Your task to perform on an android device: turn on javascript in the chrome app Image 0: 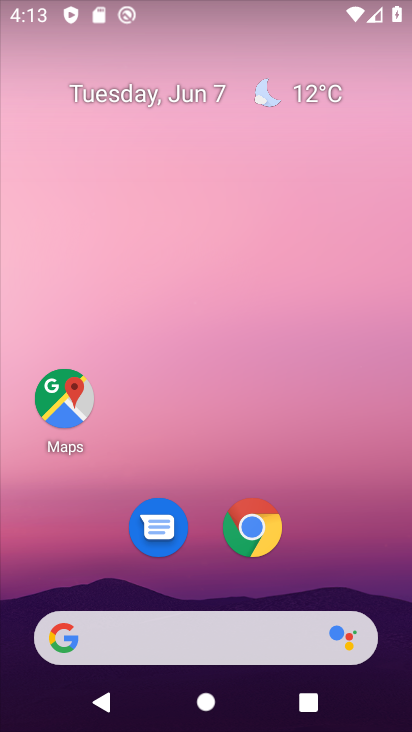
Step 0: click (254, 528)
Your task to perform on an android device: turn on javascript in the chrome app Image 1: 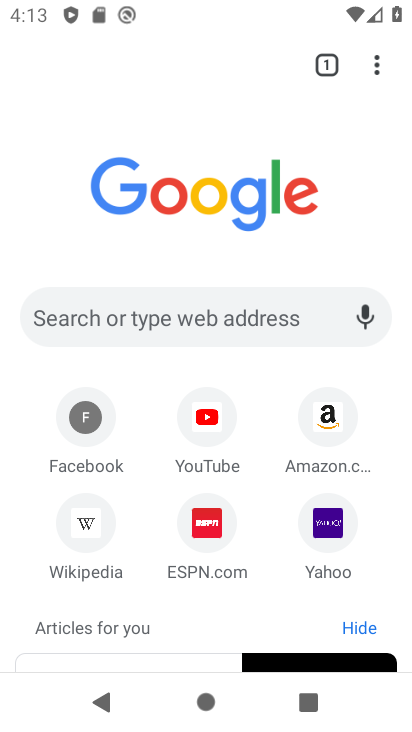
Step 1: click (376, 64)
Your task to perform on an android device: turn on javascript in the chrome app Image 2: 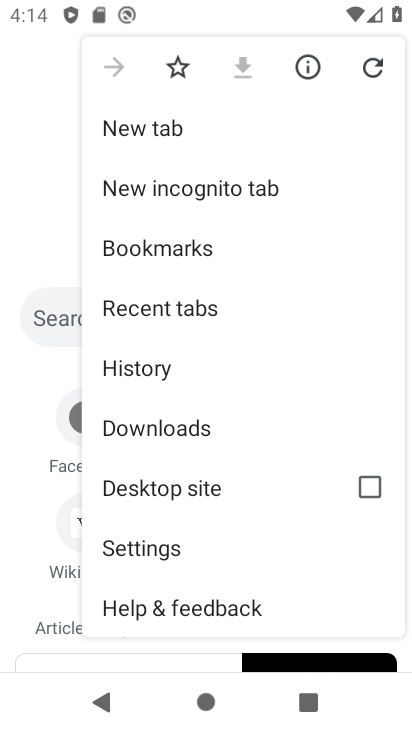
Step 2: click (179, 557)
Your task to perform on an android device: turn on javascript in the chrome app Image 3: 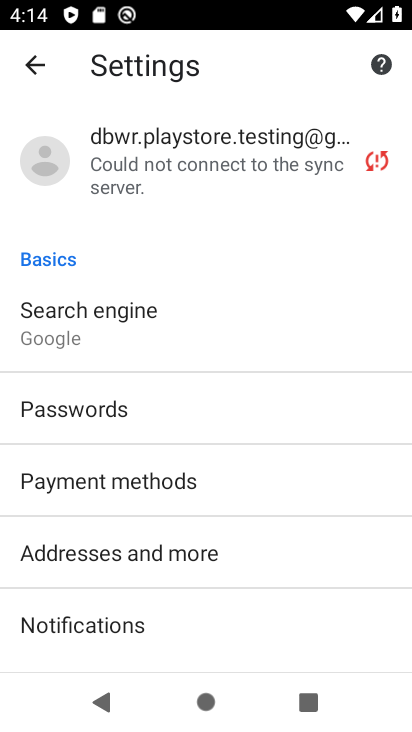
Step 3: drag from (143, 581) to (169, 484)
Your task to perform on an android device: turn on javascript in the chrome app Image 4: 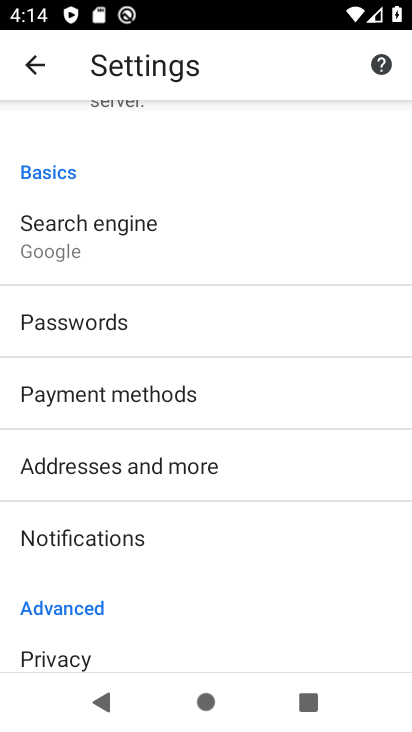
Step 4: drag from (132, 601) to (160, 475)
Your task to perform on an android device: turn on javascript in the chrome app Image 5: 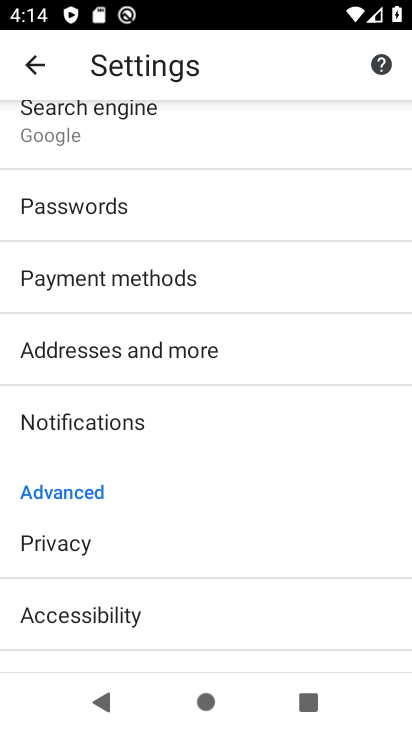
Step 5: drag from (163, 553) to (167, 378)
Your task to perform on an android device: turn on javascript in the chrome app Image 6: 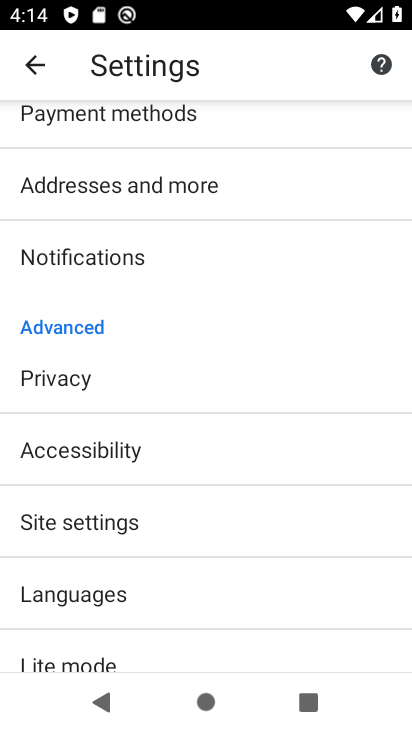
Step 6: click (97, 517)
Your task to perform on an android device: turn on javascript in the chrome app Image 7: 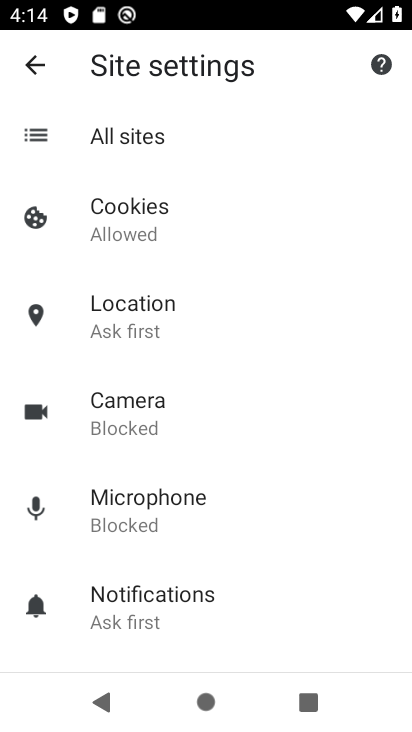
Step 7: drag from (172, 551) to (198, 400)
Your task to perform on an android device: turn on javascript in the chrome app Image 8: 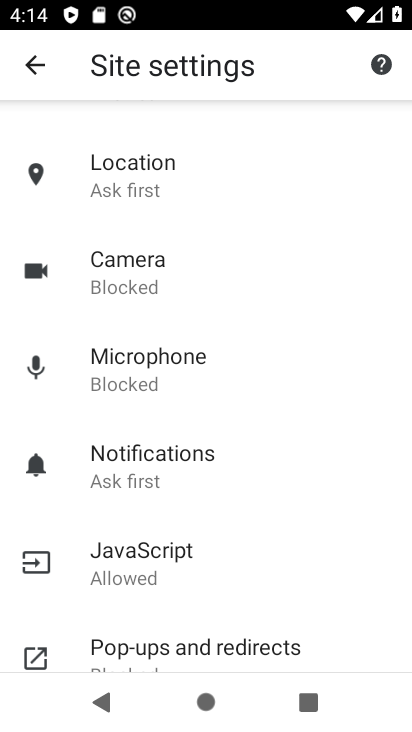
Step 8: click (163, 553)
Your task to perform on an android device: turn on javascript in the chrome app Image 9: 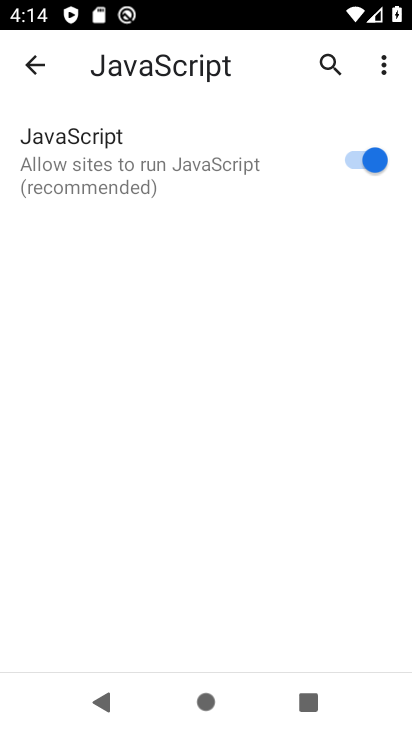
Step 9: task complete